Your task to perform on an android device: create a new album in the google photos Image 0: 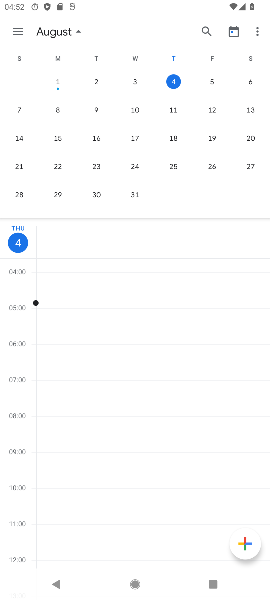
Step 0: press home button
Your task to perform on an android device: create a new album in the google photos Image 1: 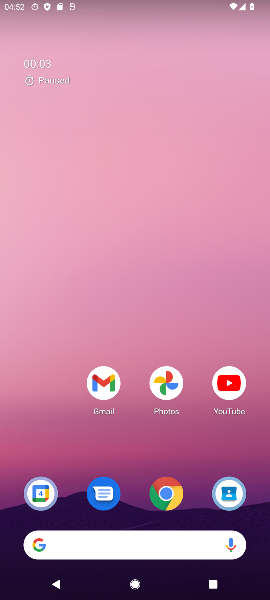
Step 1: click (169, 396)
Your task to perform on an android device: create a new album in the google photos Image 2: 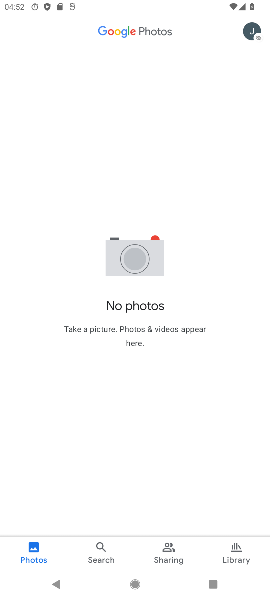
Step 2: task complete